Your task to perform on an android device: turn notification dots off Image 0: 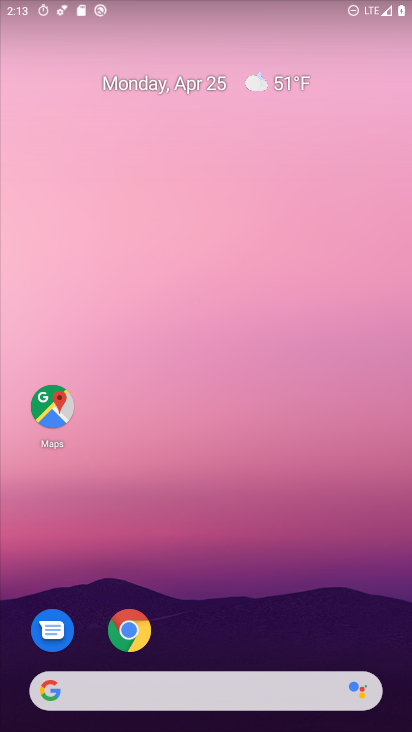
Step 0: drag from (184, 578) to (238, 251)
Your task to perform on an android device: turn notification dots off Image 1: 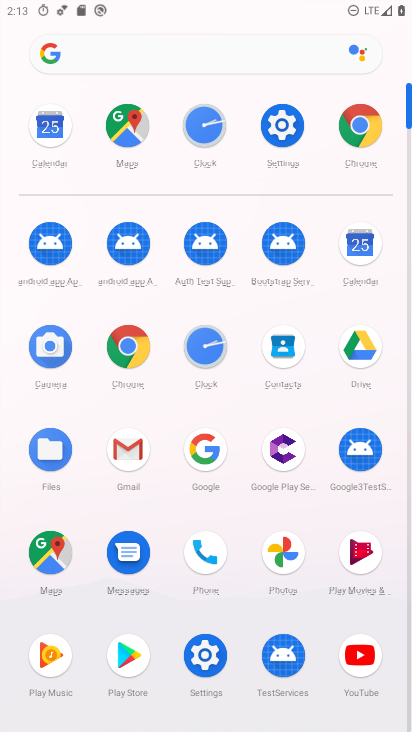
Step 1: click (199, 657)
Your task to perform on an android device: turn notification dots off Image 2: 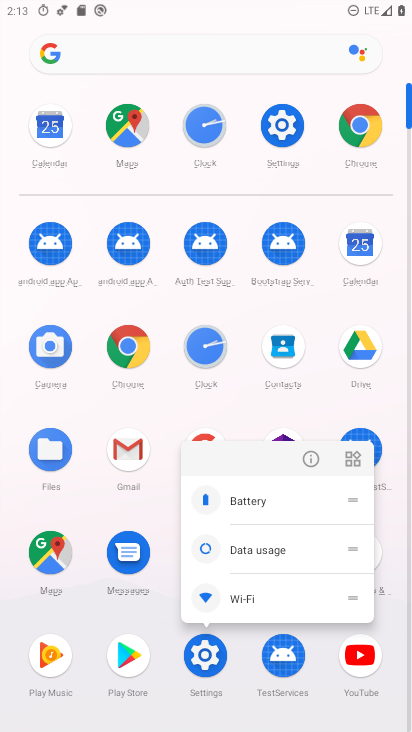
Step 2: click (314, 454)
Your task to perform on an android device: turn notification dots off Image 3: 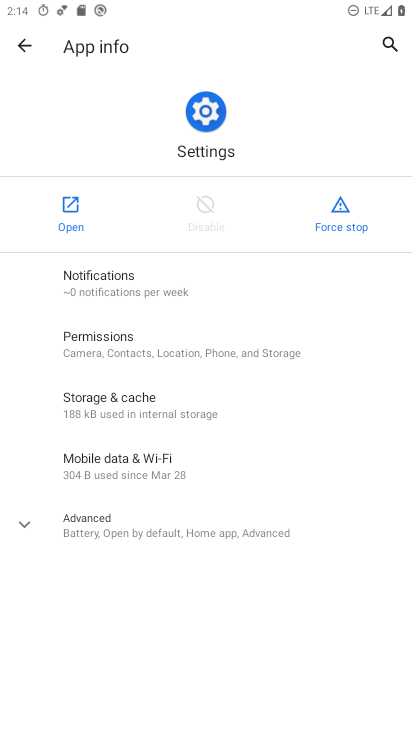
Step 3: click (69, 204)
Your task to perform on an android device: turn notification dots off Image 4: 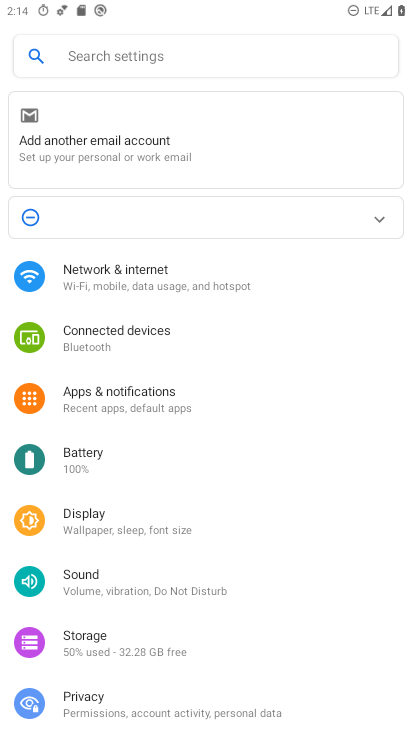
Step 4: drag from (190, 487) to (207, 120)
Your task to perform on an android device: turn notification dots off Image 5: 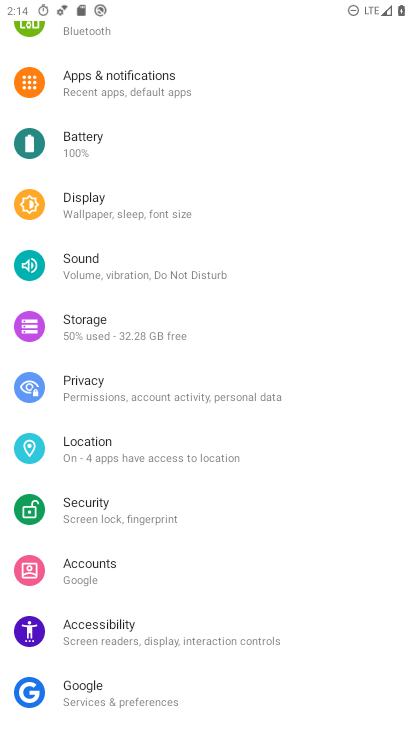
Step 5: click (124, 72)
Your task to perform on an android device: turn notification dots off Image 6: 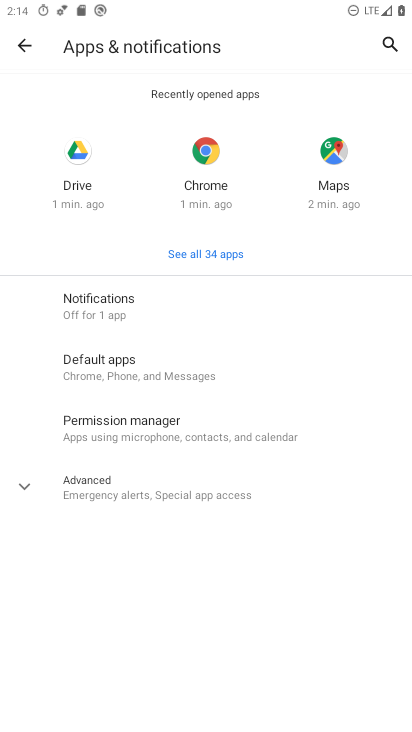
Step 6: click (171, 316)
Your task to perform on an android device: turn notification dots off Image 7: 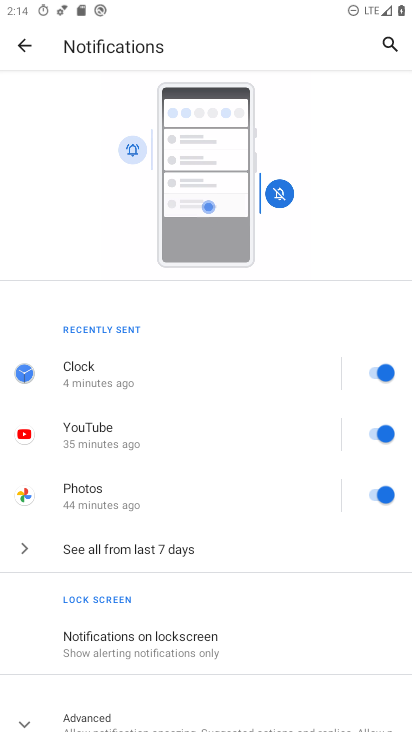
Step 7: drag from (164, 660) to (212, 192)
Your task to perform on an android device: turn notification dots off Image 8: 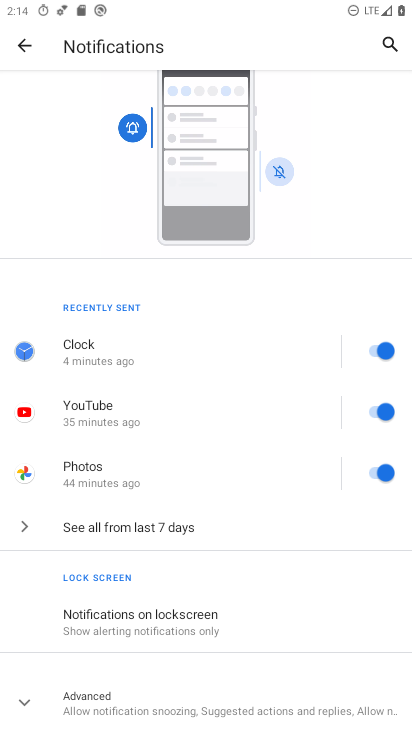
Step 8: click (105, 713)
Your task to perform on an android device: turn notification dots off Image 9: 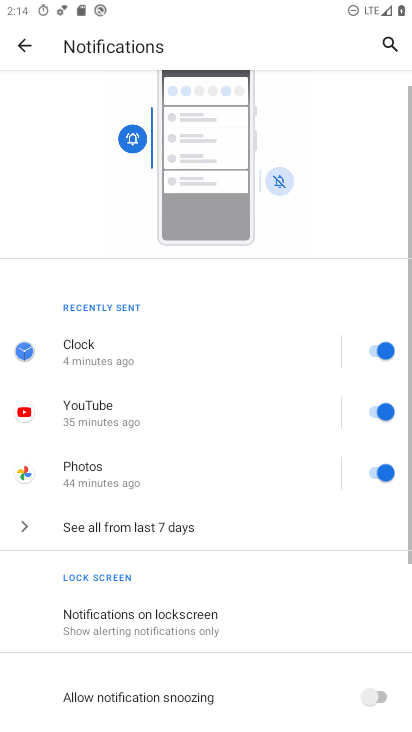
Step 9: drag from (169, 665) to (194, 176)
Your task to perform on an android device: turn notification dots off Image 10: 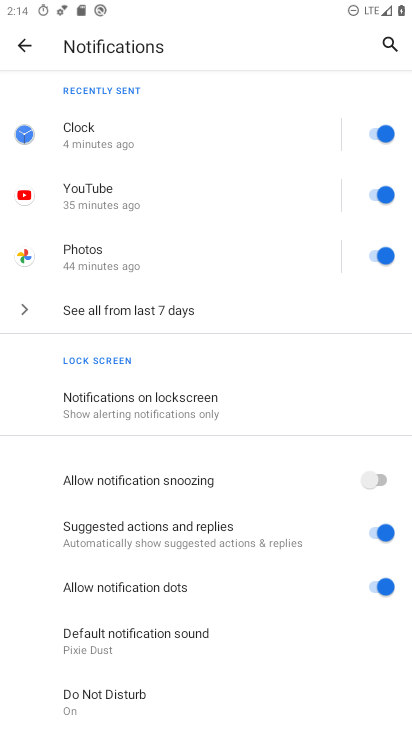
Step 10: click (235, 589)
Your task to perform on an android device: turn notification dots off Image 11: 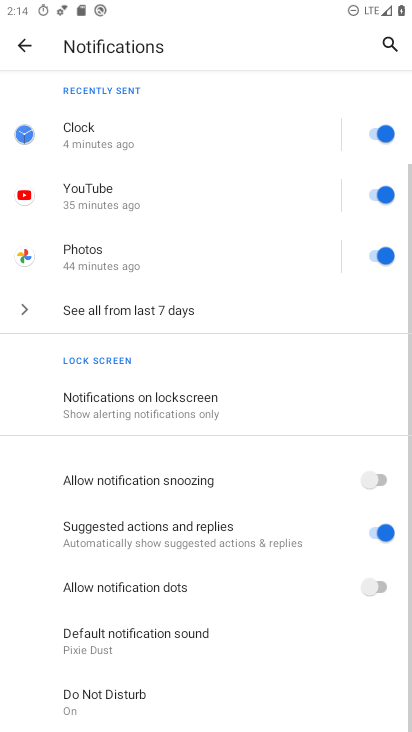
Step 11: task complete